Your task to perform on an android device: toggle priority inbox in the gmail app Image 0: 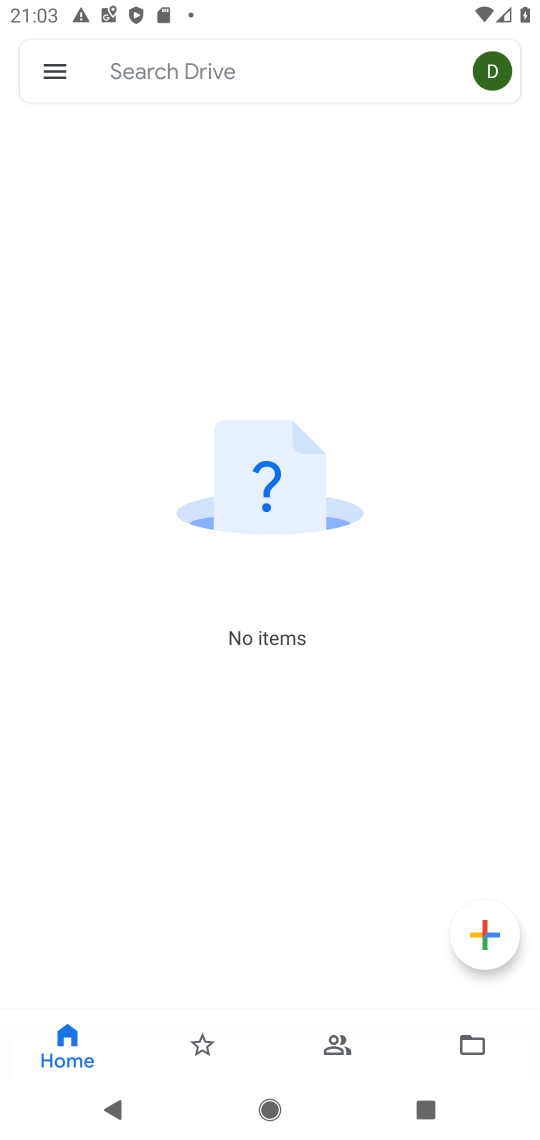
Step 0: press home button
Your task to perform on an android device: toggle priority inbox in the gmail app Image 1: 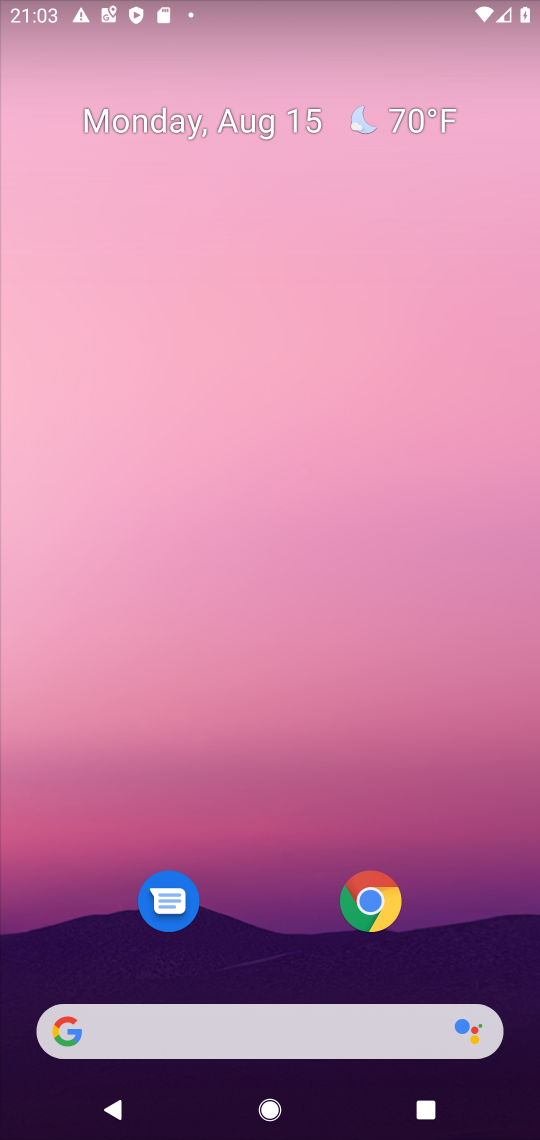
Step 1: drag from (223, 770) to (285, 79)
Your task to perform on an android device: toggle priority inbox in the gmail app Image 2: 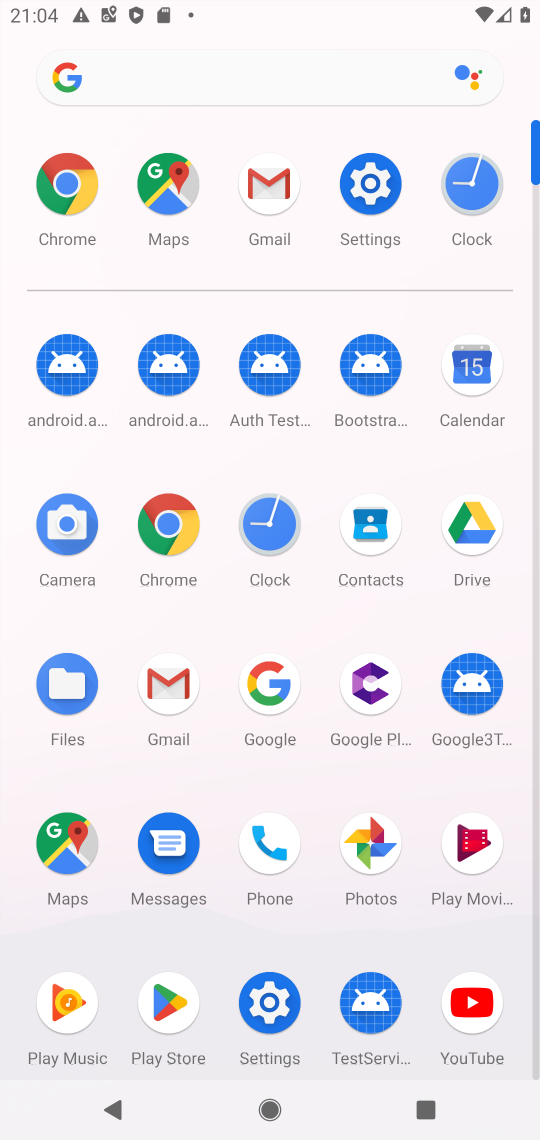
Step 2: click (165, 690)
Your task to perform on an android device: toggle priority inbox in the gmail app Image 3: 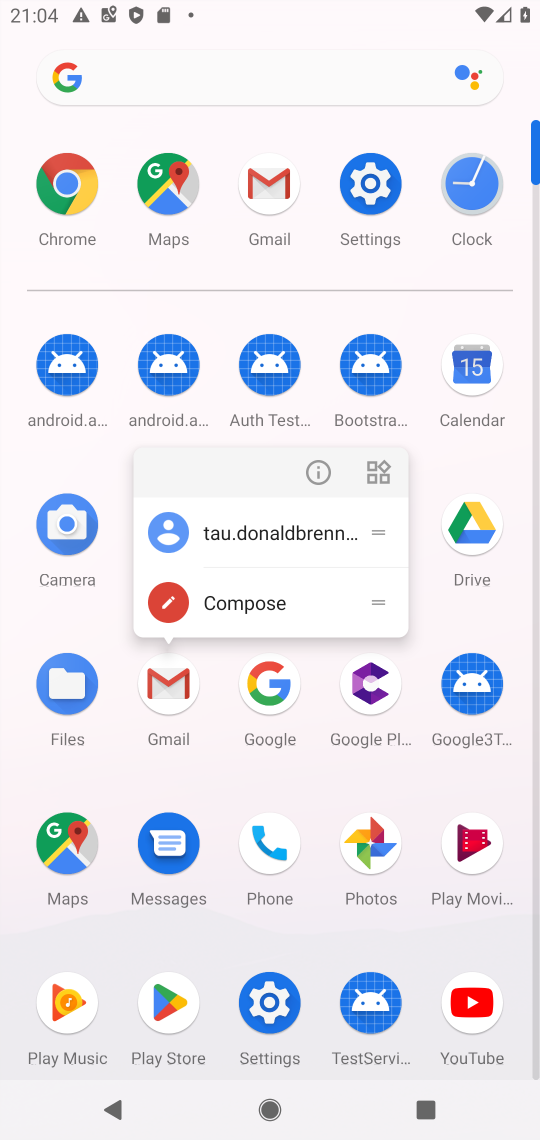
Step 3: click (164, 688)
Your task to perform on an android device: toggle priority inbox in the gmail app Image 4: 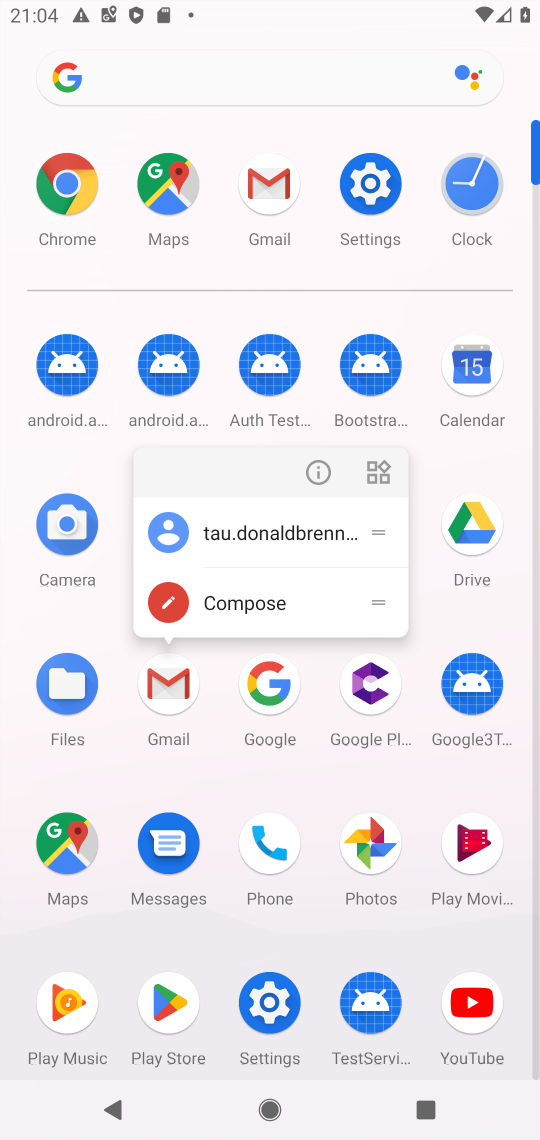
Step 4: click (169, 679)
Your task to perform on an android device: toggle priority inbox in the gmail app Image 5: 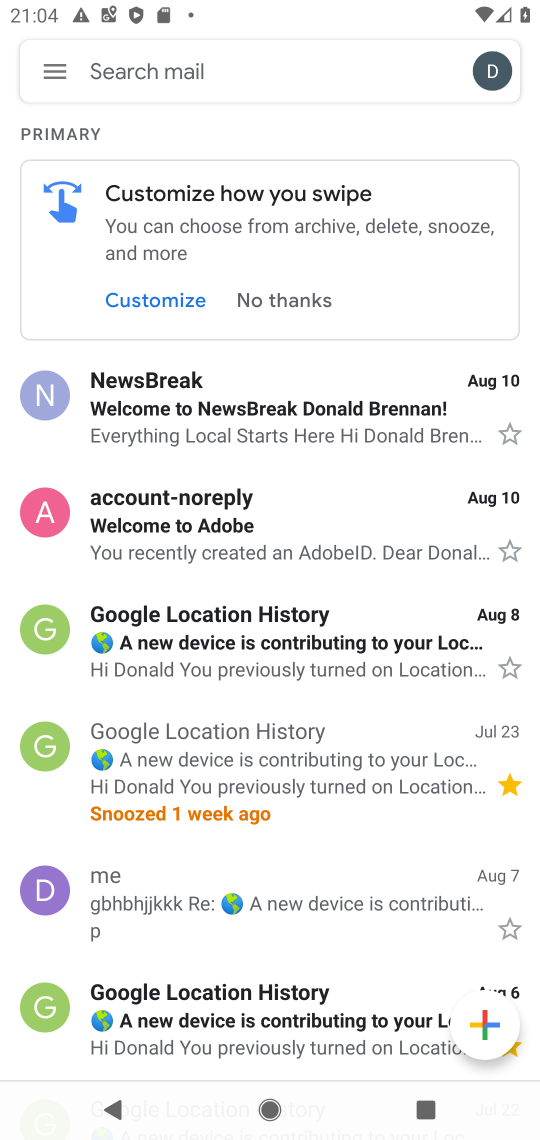
Step 5: click (48, 76)
Your task to perform on an android device: toggle priority inbox in the gmail app Image 6: 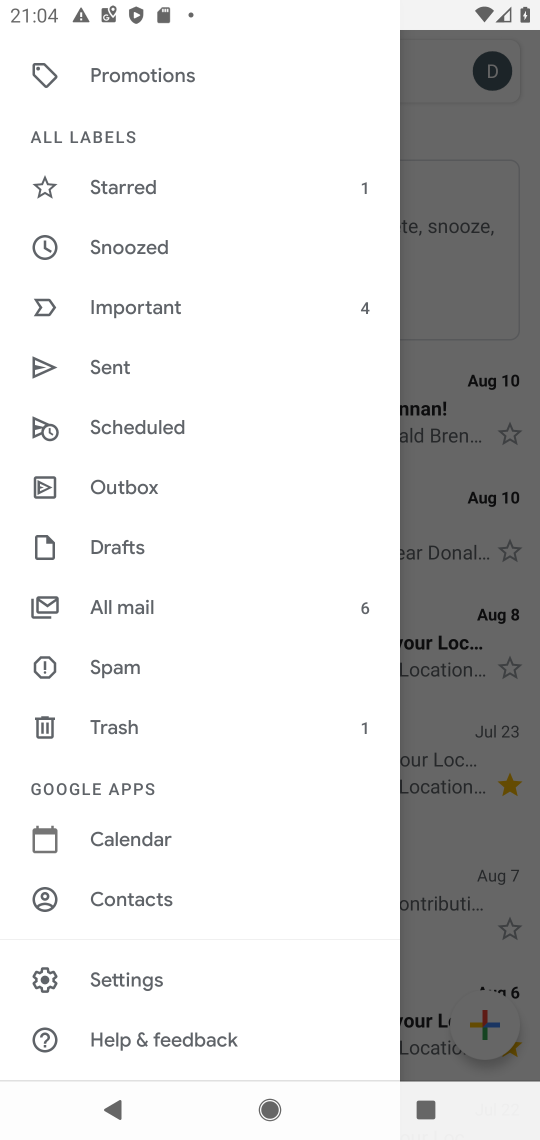
Step 6: click (147, 978)
Your task to perform on an android device: toggle priority inbox in the gmail app Image 7: 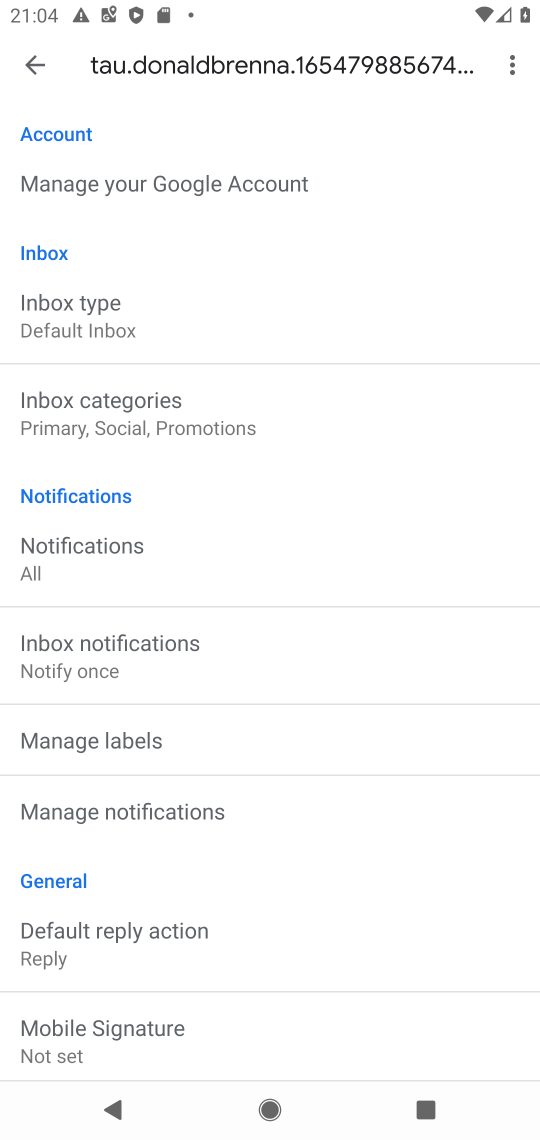
Step 7: click (128, 311)
Your task to perform on an android device: toggle priority inbox in the gmail app Image 8: 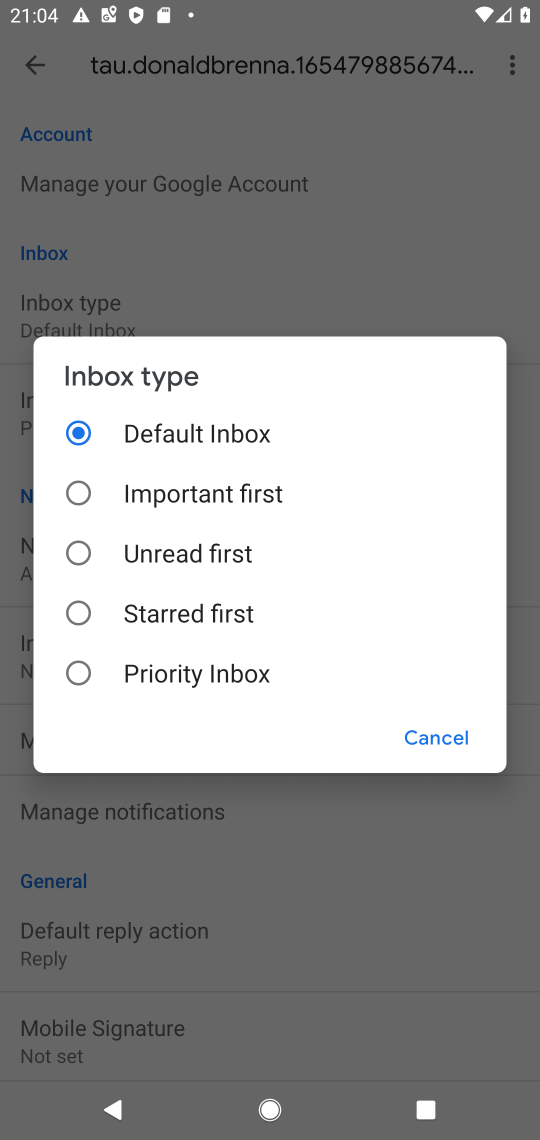
Step 8: click (205, 670)
Your task to perform on an android device: toggle priority inbox in the gmail app Image 9: 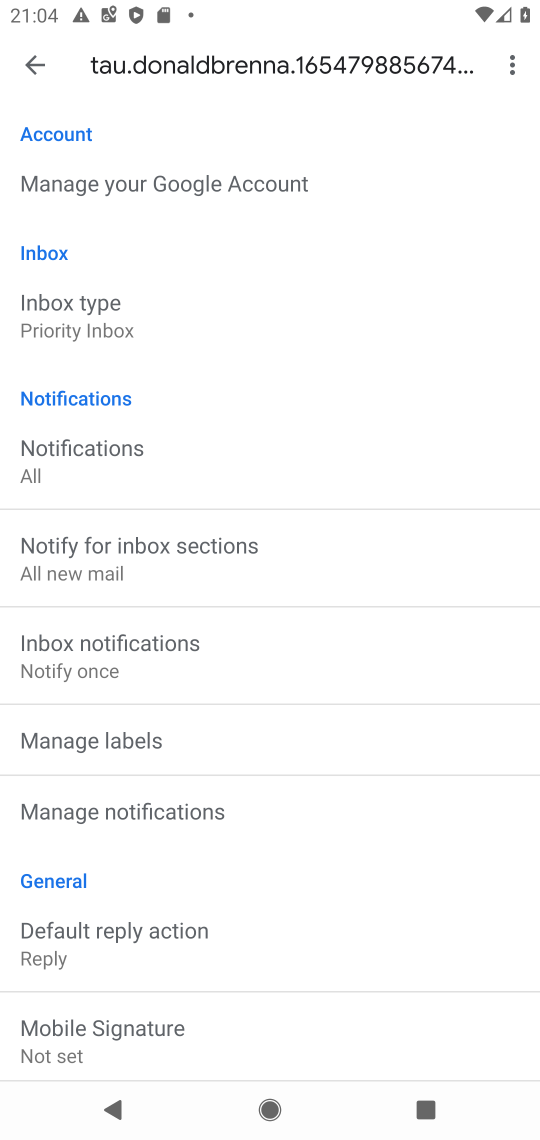
Step 9: task complete